Your task to perform on an android device: Open location settings Image 0: 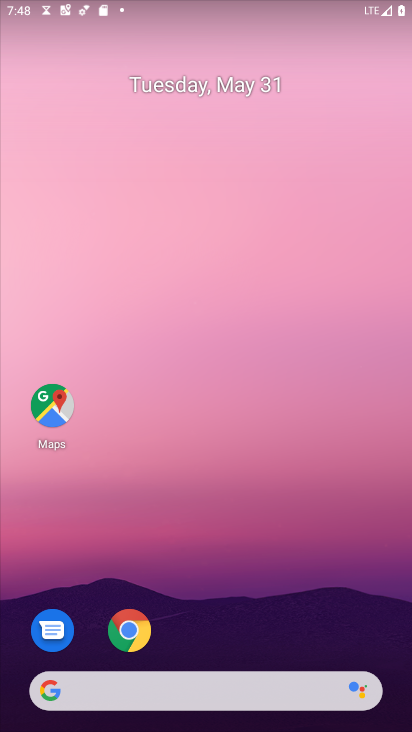
Step 0: drag from (254, 618) to (292, 157)
Your task to perform on an android device: Open location settings Image 1: 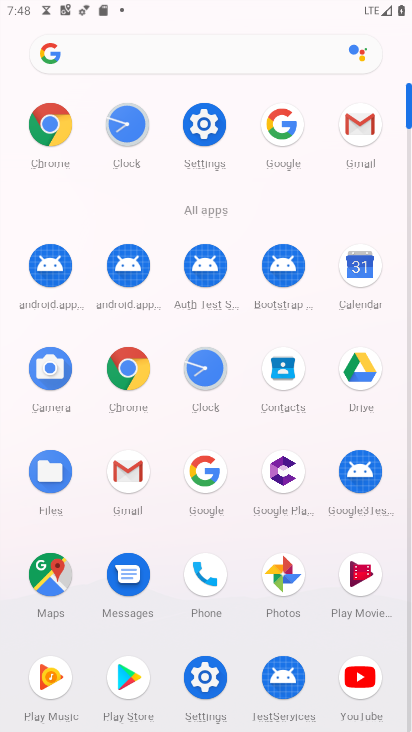
Step 1: click (203, 123)
Your task to perform on an android device: Open location settings Image 2: 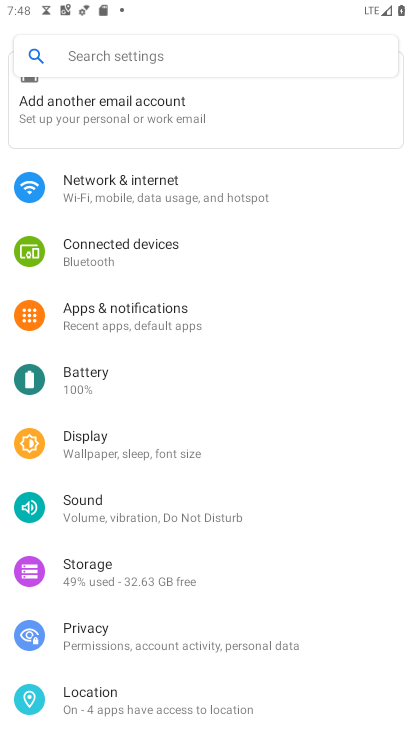
Step 2: drag from (160, 548) to (144, 365)
Your task to perform on an android device: Open location settings Image 3: 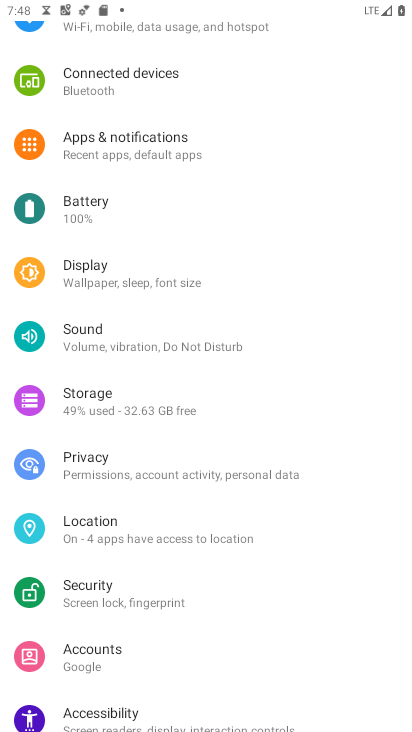
Step 3: click (163, 534)
Your task to perform on an android device: Open location settings Image 4: 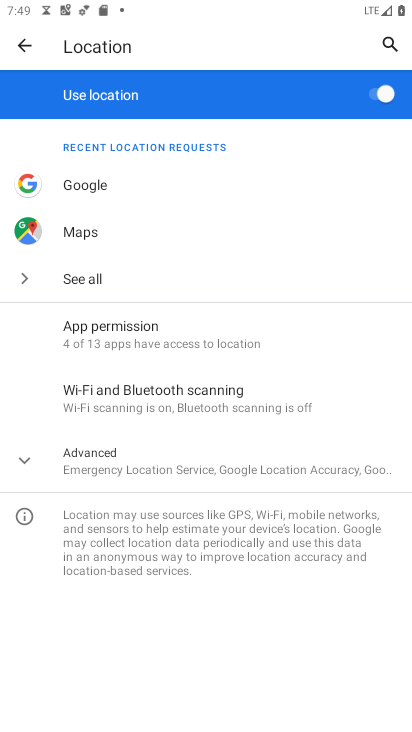
Step 4: task complete